Your task to perform on an android device: change notifications settings Image 0: 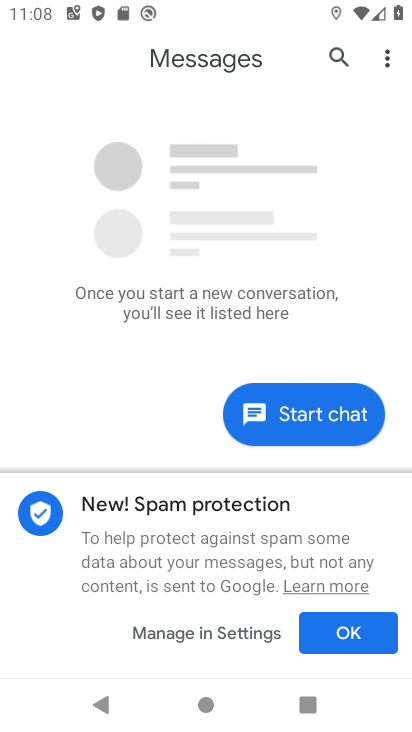
Step 0: press back button
Your task to perform on an android device: change notifications settings Image 1: 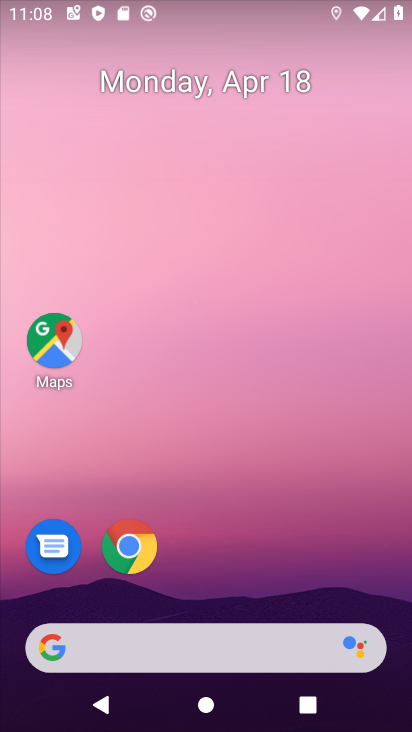
Step 1: press back button
Your task to perform on an android device: change notifications settings Image 2: 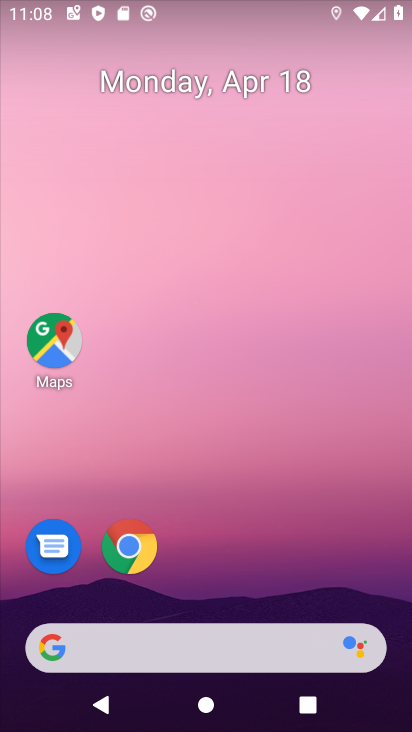
Step 2: drag from (291, 602) to (253, 160)
Your task to perform on an android device: change notifications settings Image 3: 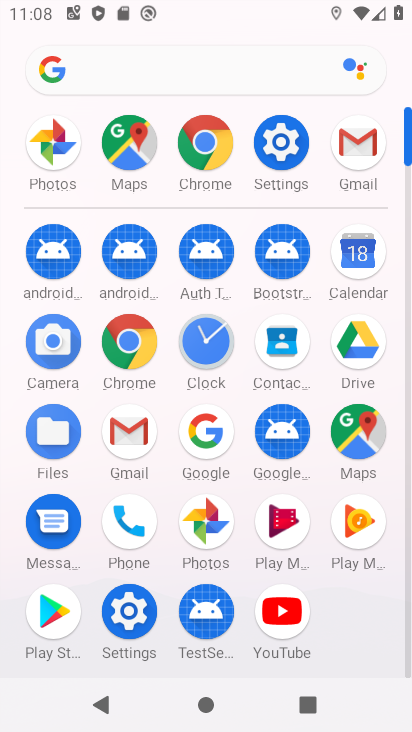
Step 3: click (282, 179)
Your task to perform on an android device: change notifications settings Image 4: 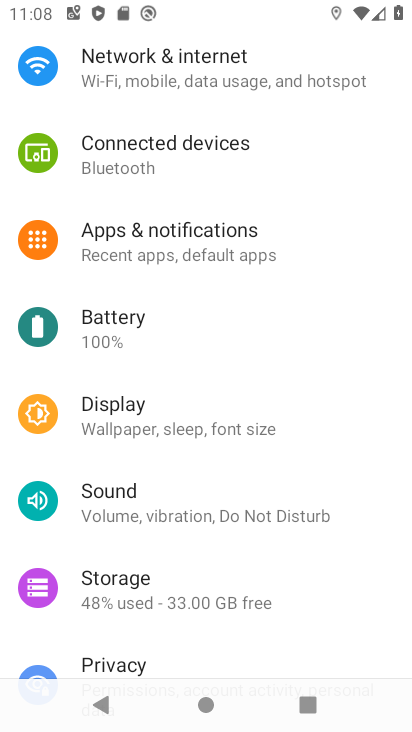
Step 4: click (237, 258)
Your task to perform on an android device: change notifications settings Image 5: 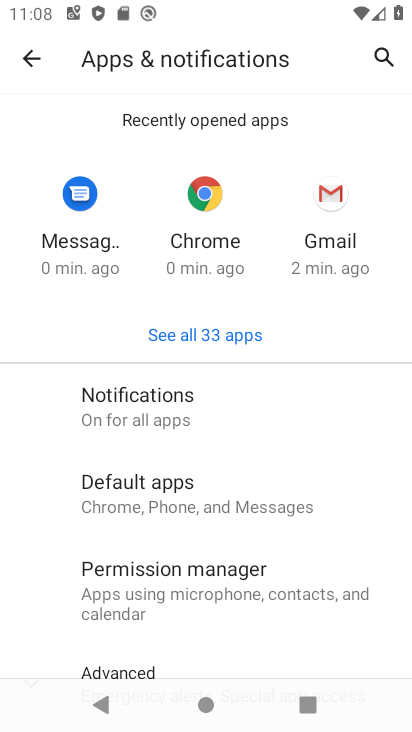
Step 5: click (230, 423)
Your task to perform on an android device: change notifications settings Image 6: 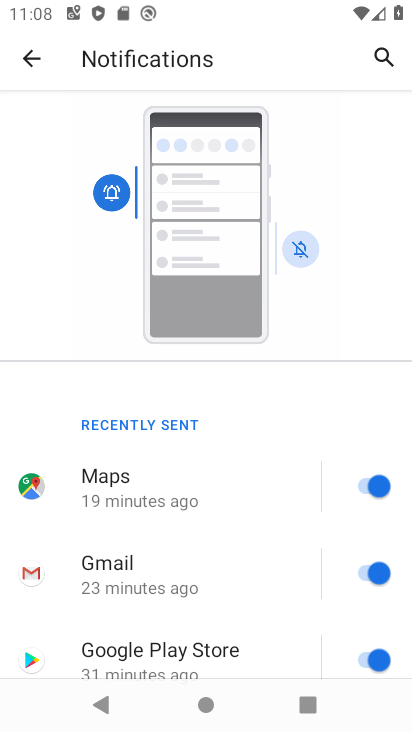
Step 6: drag from (221, 528) to (230, 78)
Your task to perform on an android device: change notifications settings Image 7: 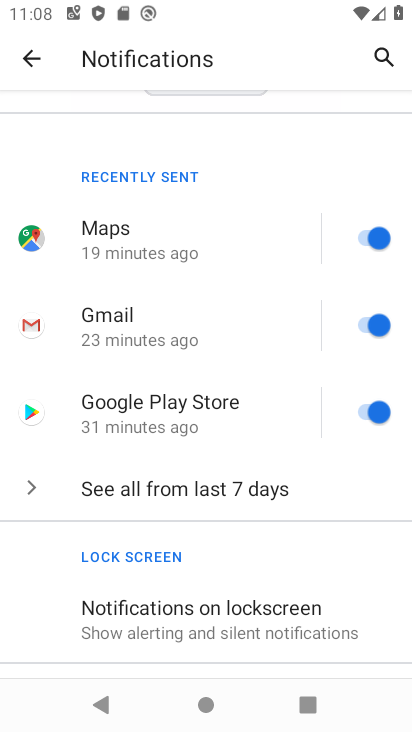
Step 7: drag from (232, 618) to (141, 206)
Your task to perform on an android device: change notifications settings Image 8: 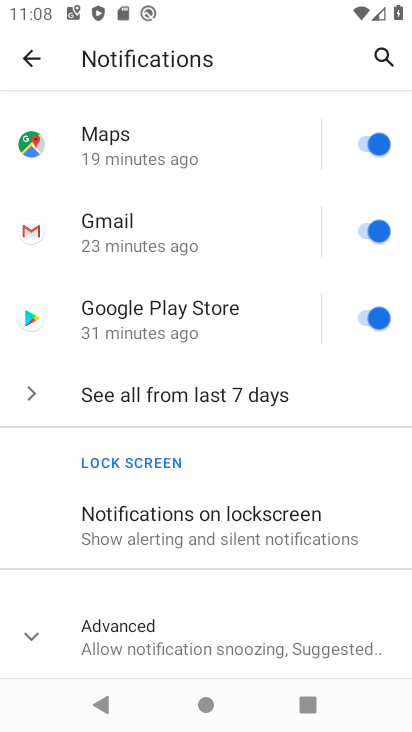
Step 8: click (173, 613)
Your task to perform on an android device: change notifications settings Image 9: 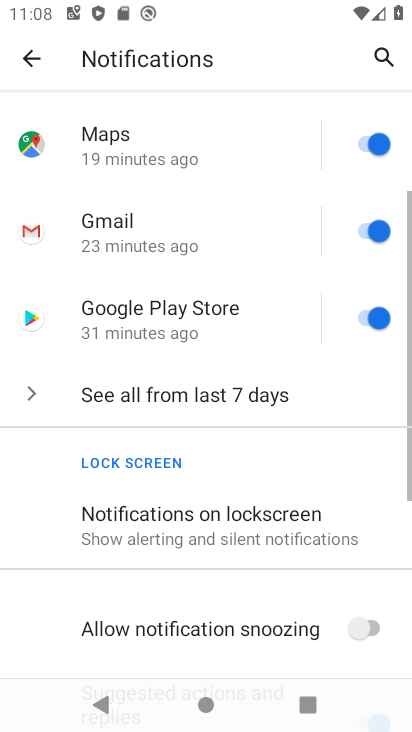
Step 9: drag from (276, 587) to (276, 48)
Your task to perform on an android device: change notifications settings Image 10: 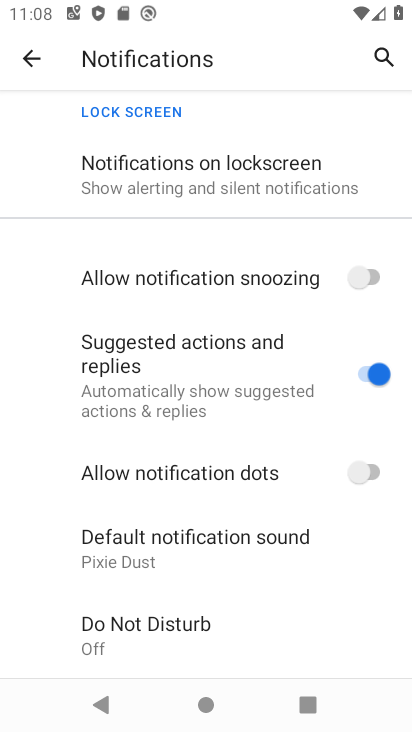
Step 10: click (353, 478)
Your task to perform on an android device: change notifications settings Image 11: 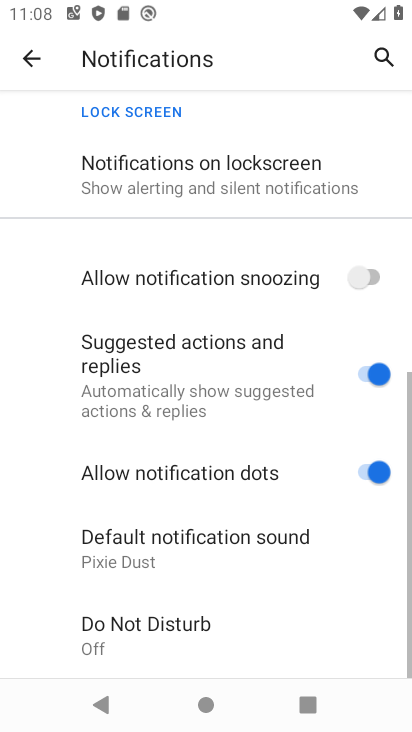
Step 11: task complete